Your task to perform on an android device: Open the Play Movies app and select the watchlist tab. Image 0: 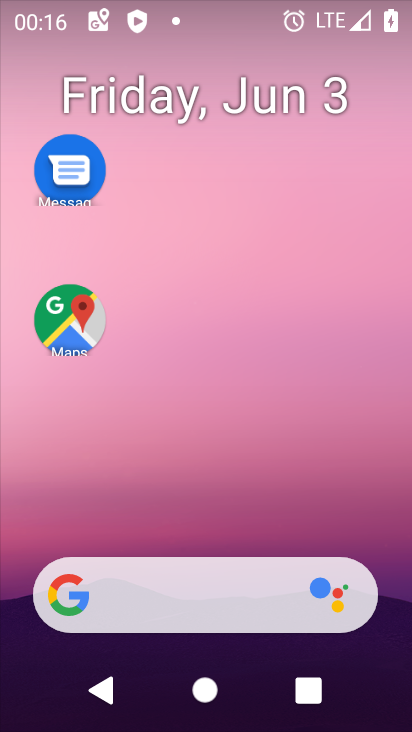
Step 0: drag from (359, 687) to (327, 355)
Your task to perform on an android device: Open the Play Movies app and select the watchlist tab. Image 1: 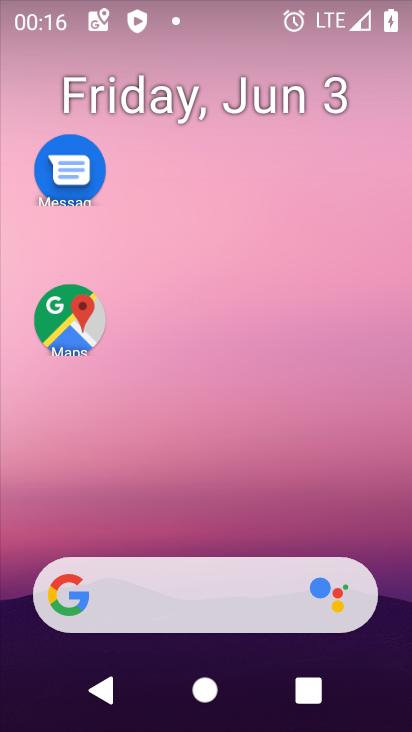
Step 1: drag from (410, 713) to (309, 449)
Your task to perform on an android device: Open the Play Movies app and select the watchlist tab. Image 2: 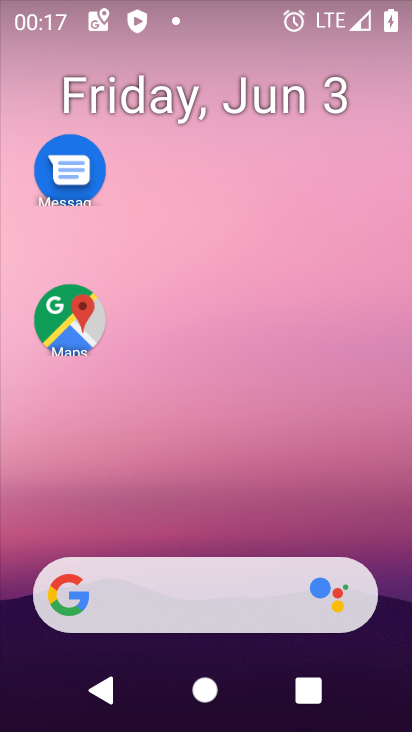
Step 2: drag from (304, 462) to (312, 3)
Your task to perform on an android device: Open the Play Movies app and select the watchlist tab. Image 3: 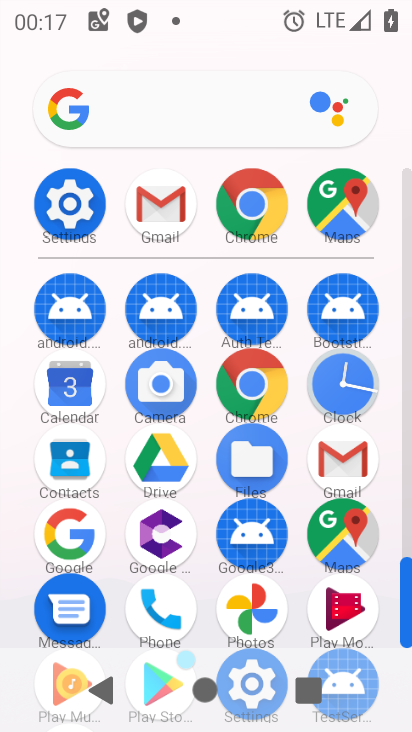
Step 3: click (338, 595)
Your task to perform on an android device: Open the Play Movies app and select the watchlist tab. Image 4: 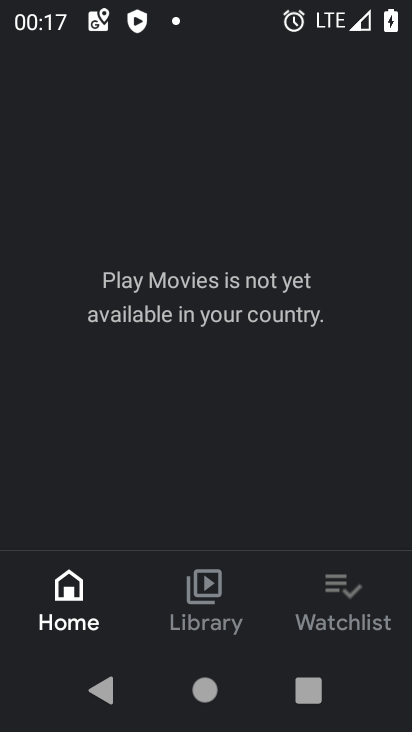
Step 4: click (341, 595)
Your task to perform on an android device: Open the Play Movies app and select the watchlist tab. Image 5: 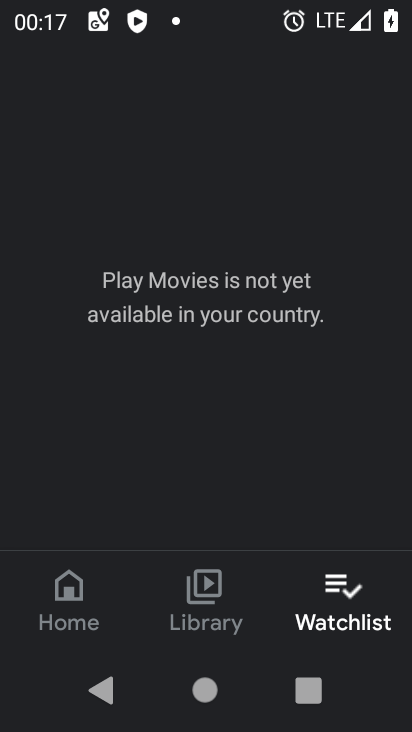
Step 5: task complete